Your task to perform on an android device: Go to Wikipedia Image 0: 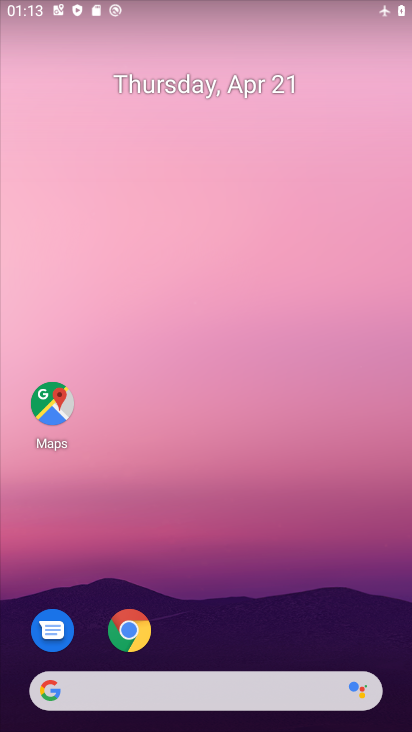
Step 0: click (120, 632)
Your task to perform on an android device: Go to Wikipedia Image 1: 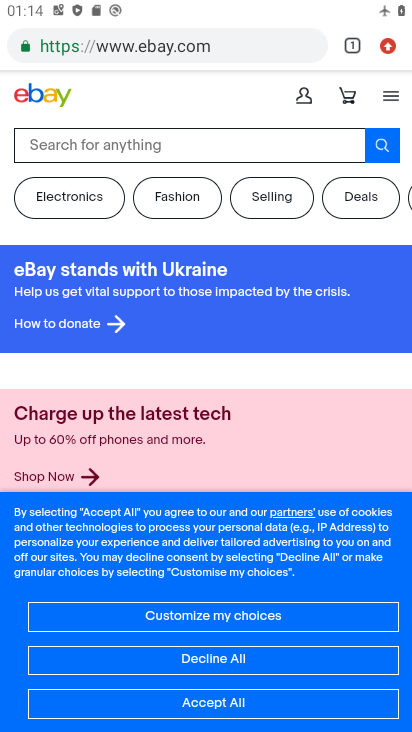
Step 1: click (251, 44)
Your task to perform on an android device: Go to Wikipedia Image 2: 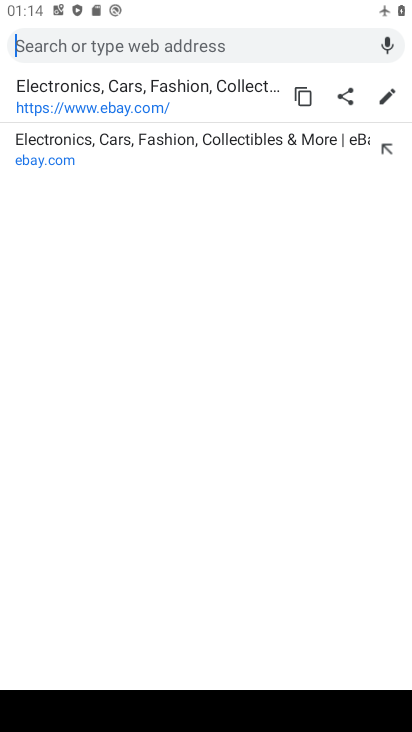
Step 2: type "wikipedia"
Your task to perform on an android device: Go to Wikipedia Image 3: 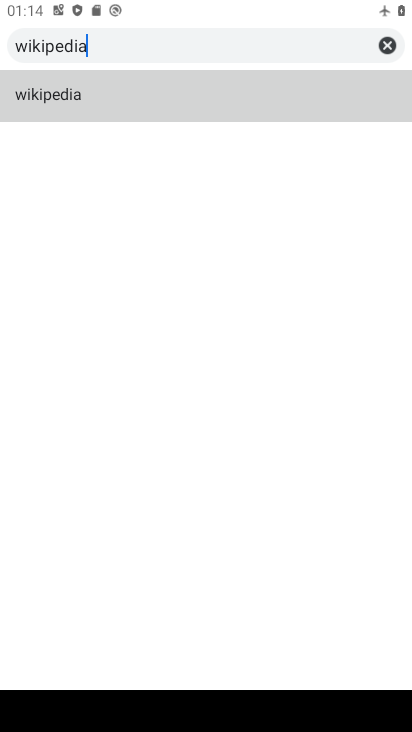
Step 3: task complete